Your task to perform on an android device: change text size in settings app Image 0: 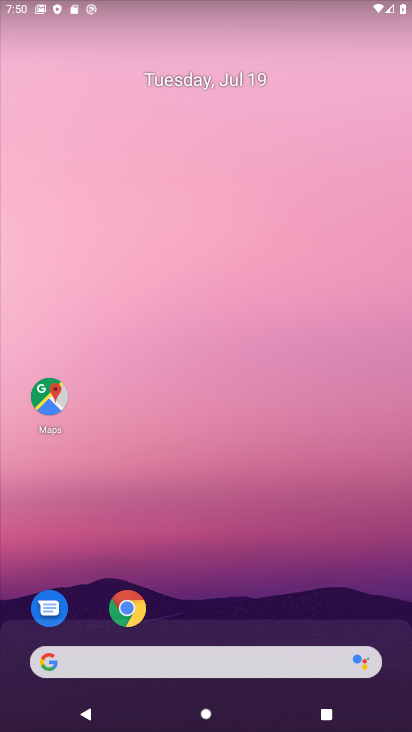
Step 0: drag from (222, 613) to (95, 277)
Your task to perform on an android device: change text size in settings app Image 1: 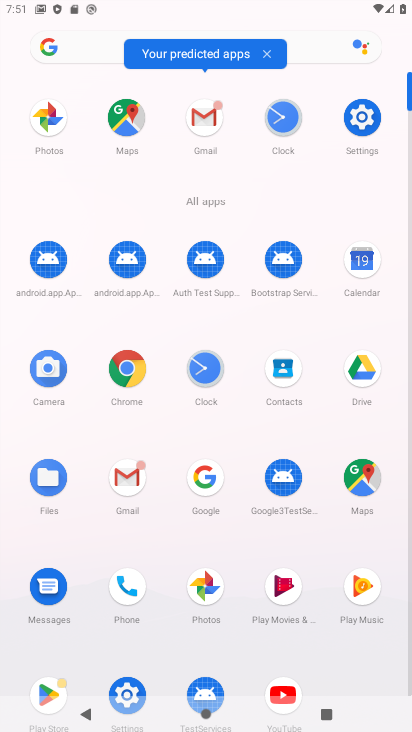
Step 1: click (368, 124)
Your task to perform on an android device: change text size in settings app Image 2: 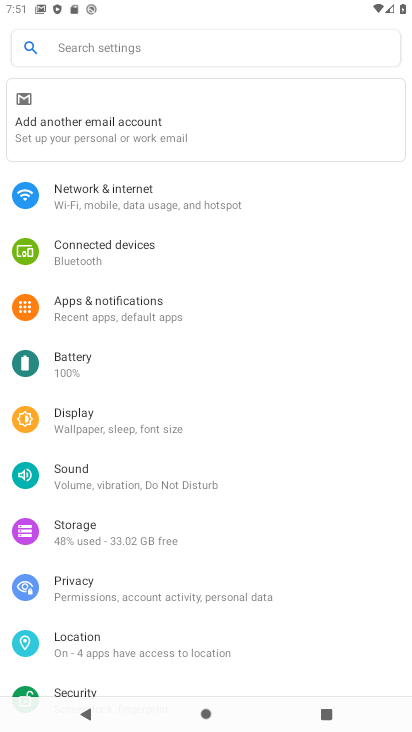
Step 2: click (102, 421)
Your task to perform on an android device: change text size in settings app Image 3: 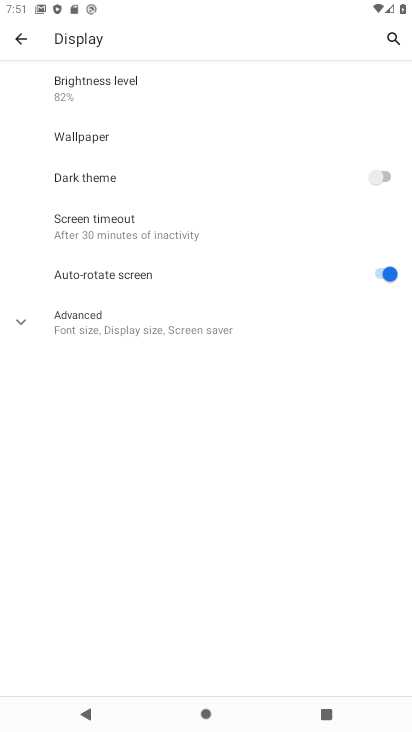
Step 3: click (76, 318)
Your task to perform on an android device: change text size in settings app Image 4: 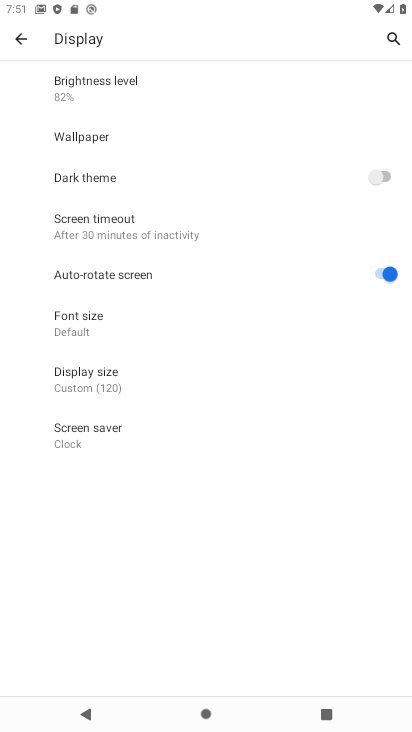
Step 4: click (70, 323)
Your task to perform on an android device: change text size in settings app Image 5: 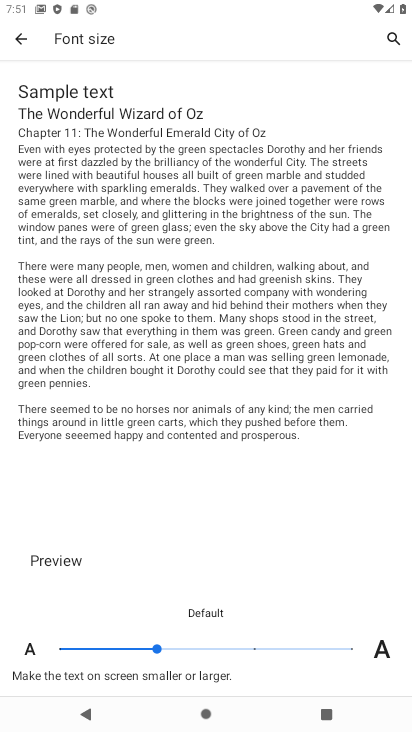
Step 5: click (62, 652)
Your task to perform on an android device: change text size in settings app Image 6: 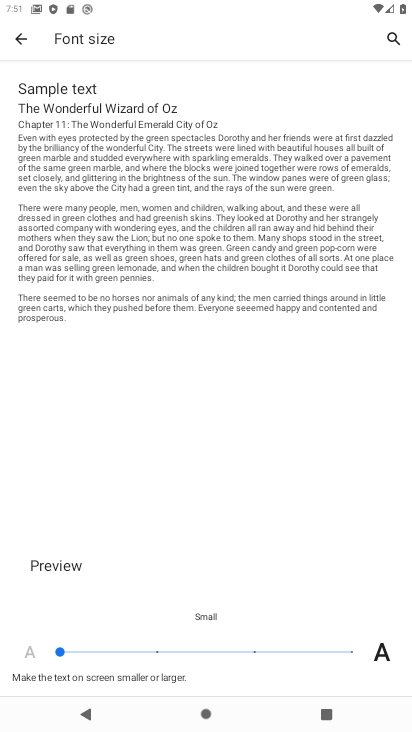
Step 6: task complete